Your task to perform on an android device: see sites visited before in the chrome app Image 0: 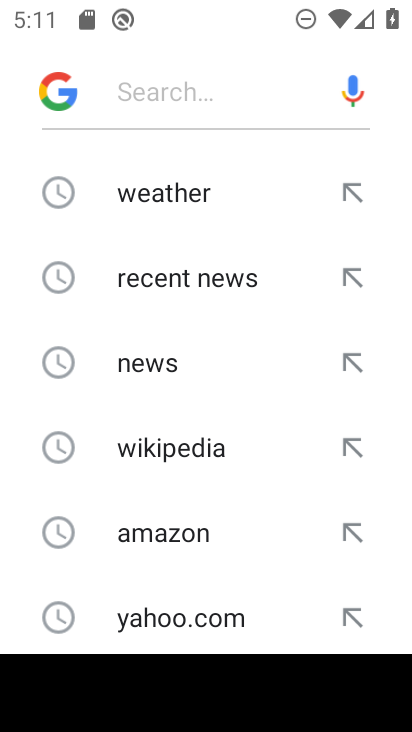
Step 0: press back button
Your task to perform on an android device: see sites visited before in the chrome app Image 1: 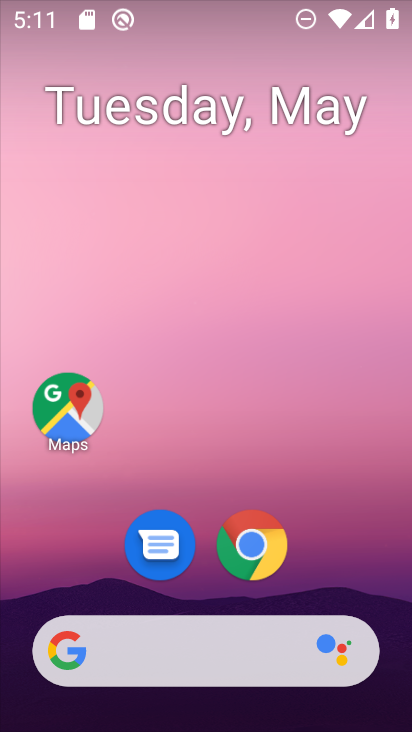
Step 1: drag from (336, 517) to (266, 55)
Your task to perform on an android device: see sites visited before in the chrome app Image 2: 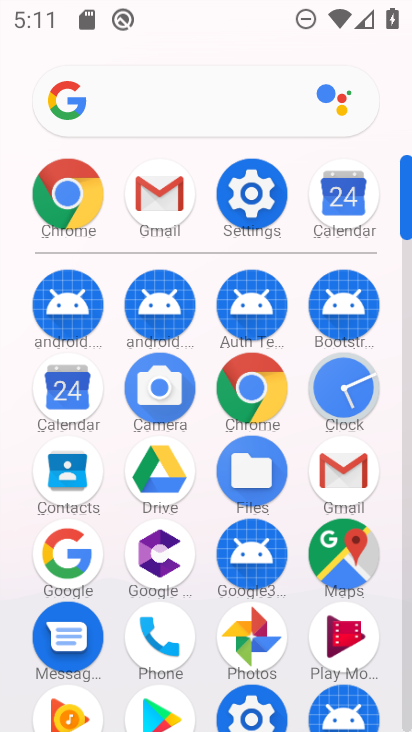
Step 2: drag from (0, 574) to (12, 219)
Your task to perform on an android device: see sites visited before in the chrome app Image 3: 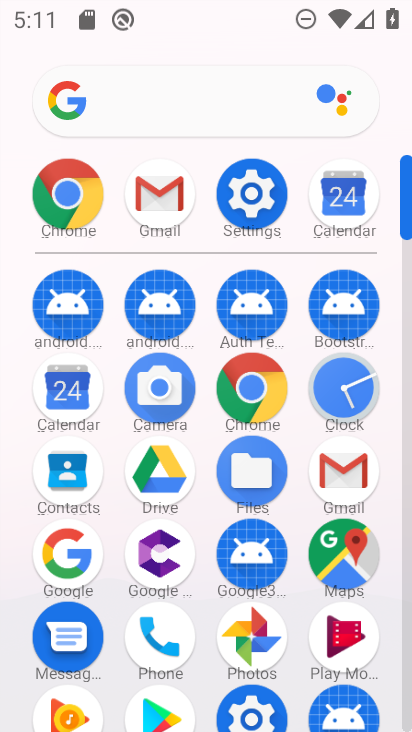
Step 3: drag from (28, 586) to (29, 263)
Your task to perform on an android device: see sites visited before in the chrome app Image 4: 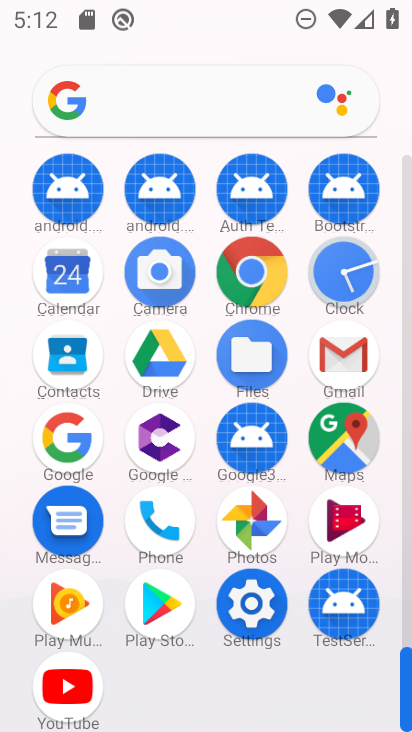
Step 4: click (254, 271)
Your task to perform on an android device: see sites visited before in the chrome app Image 5: 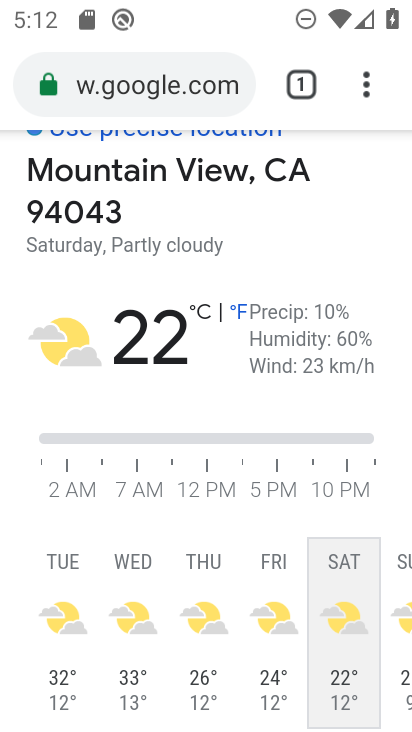
Step 5: task complete